Your task to perform on an android device: Clear the cart on costco.com. Add logitech g502 to the cart on costco.com, then select checkout. Image 0: 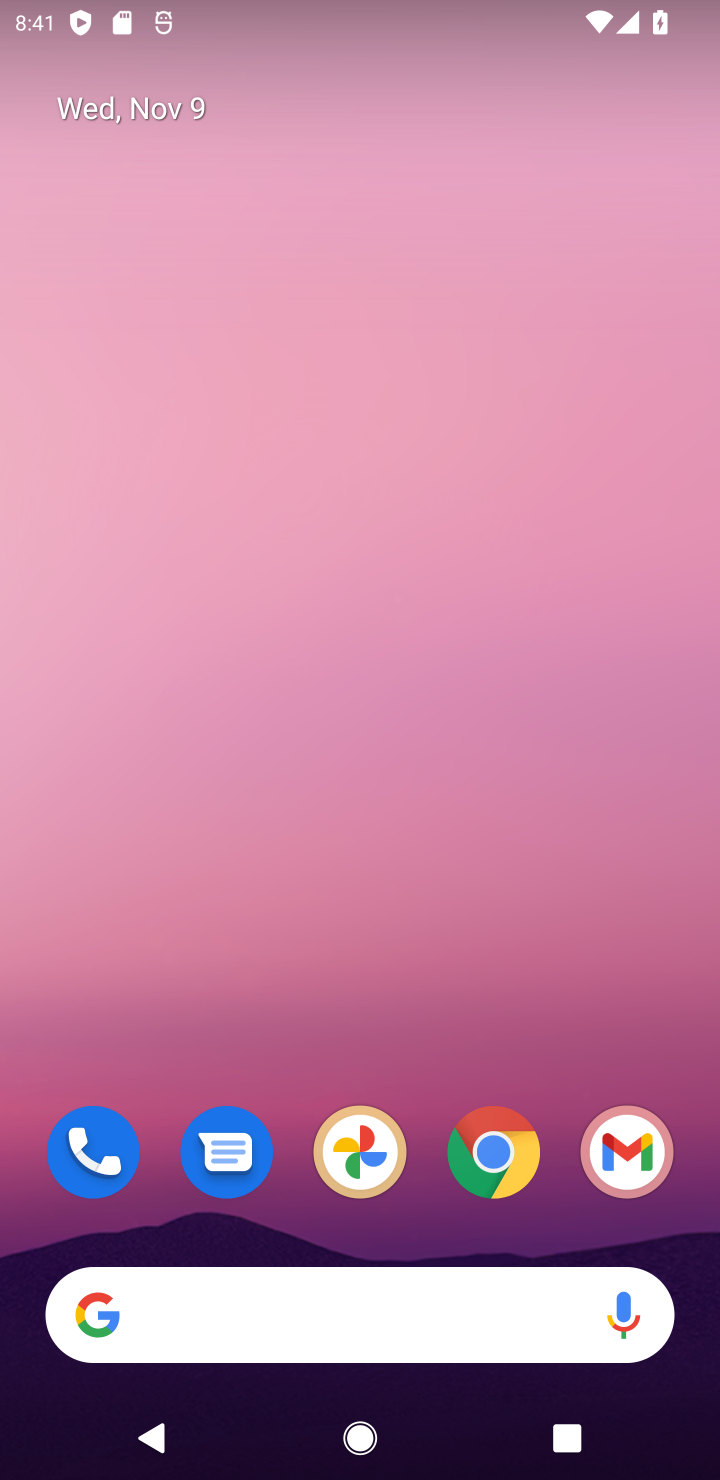
Step 0: click (484, 1148)
Your task to perform on an android device: Clear the cart on costco.com. Add logitech g502 to the cart on costco.com, then select checkout. Image 1: 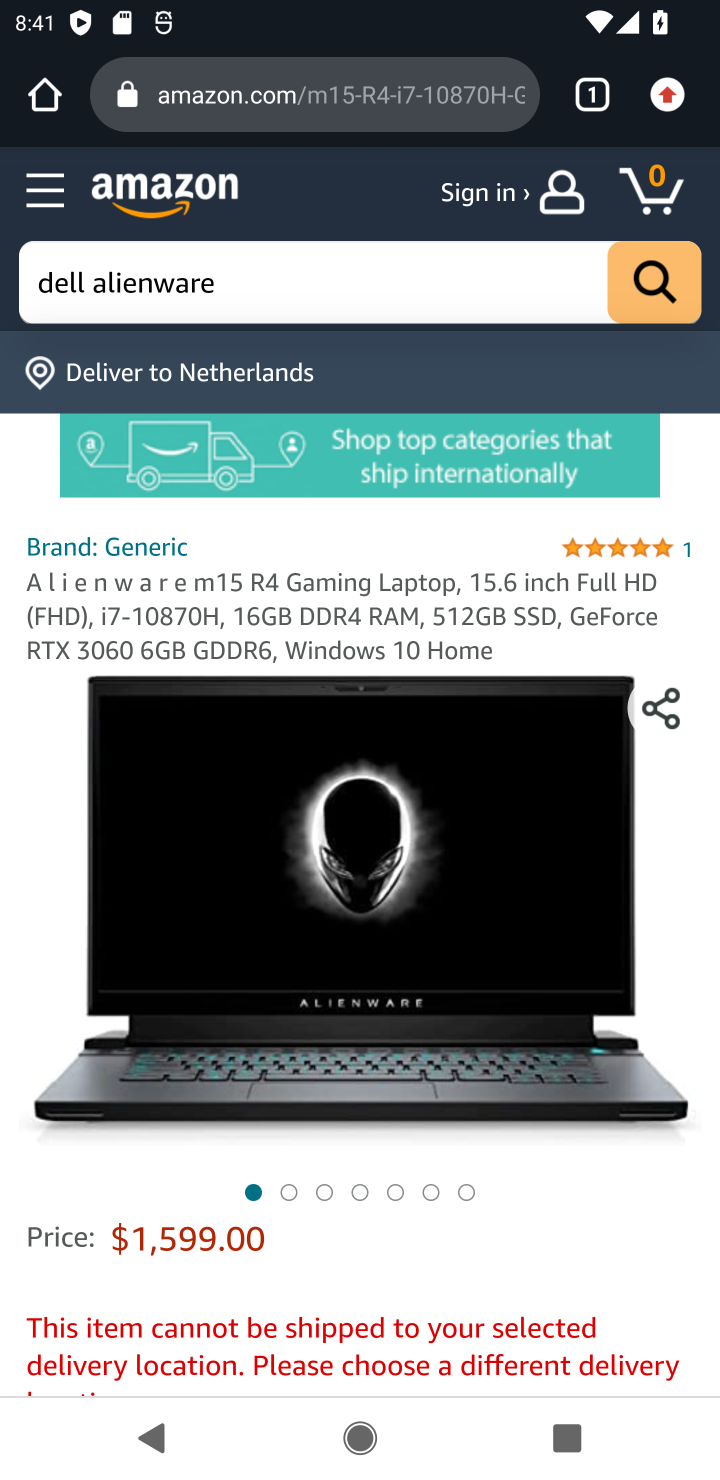
Step 1: click (376, 104)
Your task to perform on an android device: Clear the cart on costco.com. Add logitech g502 to the cart on costco.com, then select checkout. Image 2: 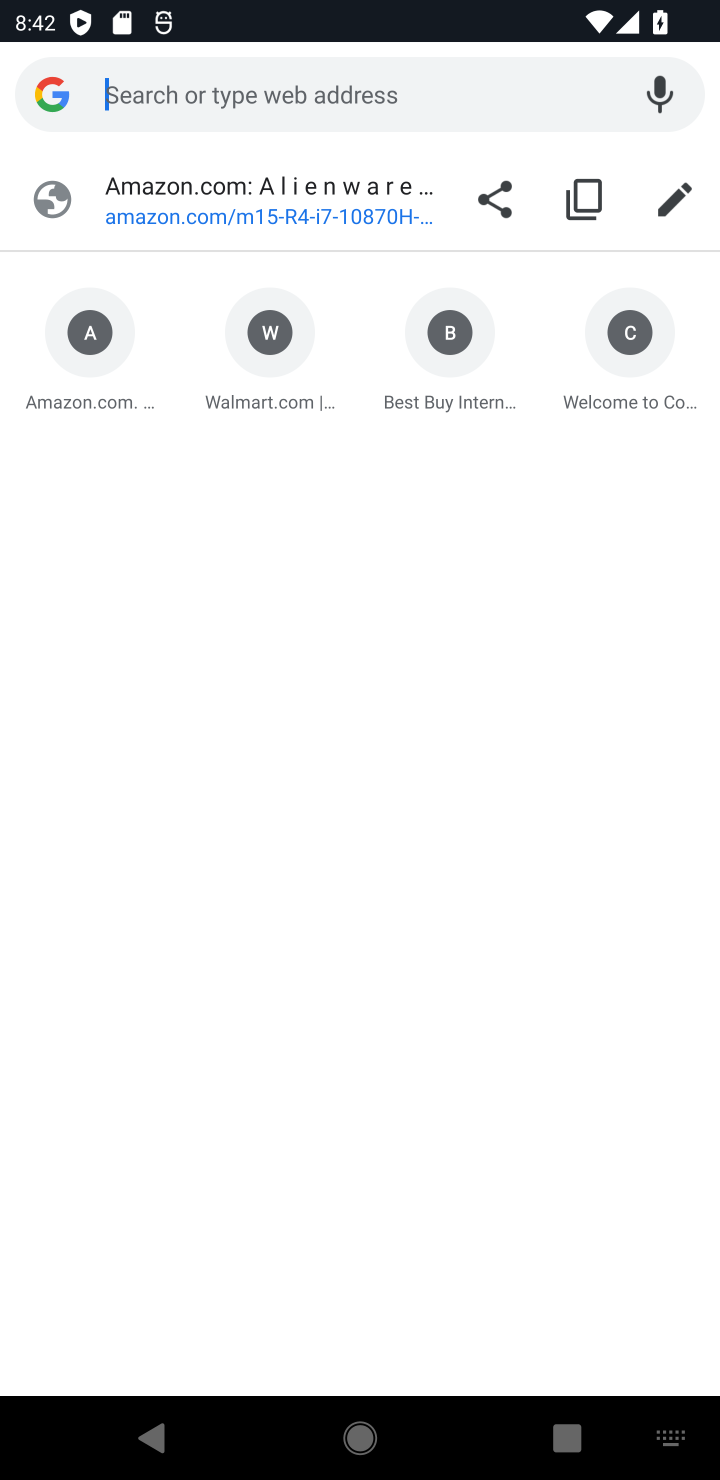
Step 2: type " costco.com"
Your task to perform on an android device: Clear the cart on costco.com. Add logitech g502 to the cart on costco.com, then select checkout. Image 3: 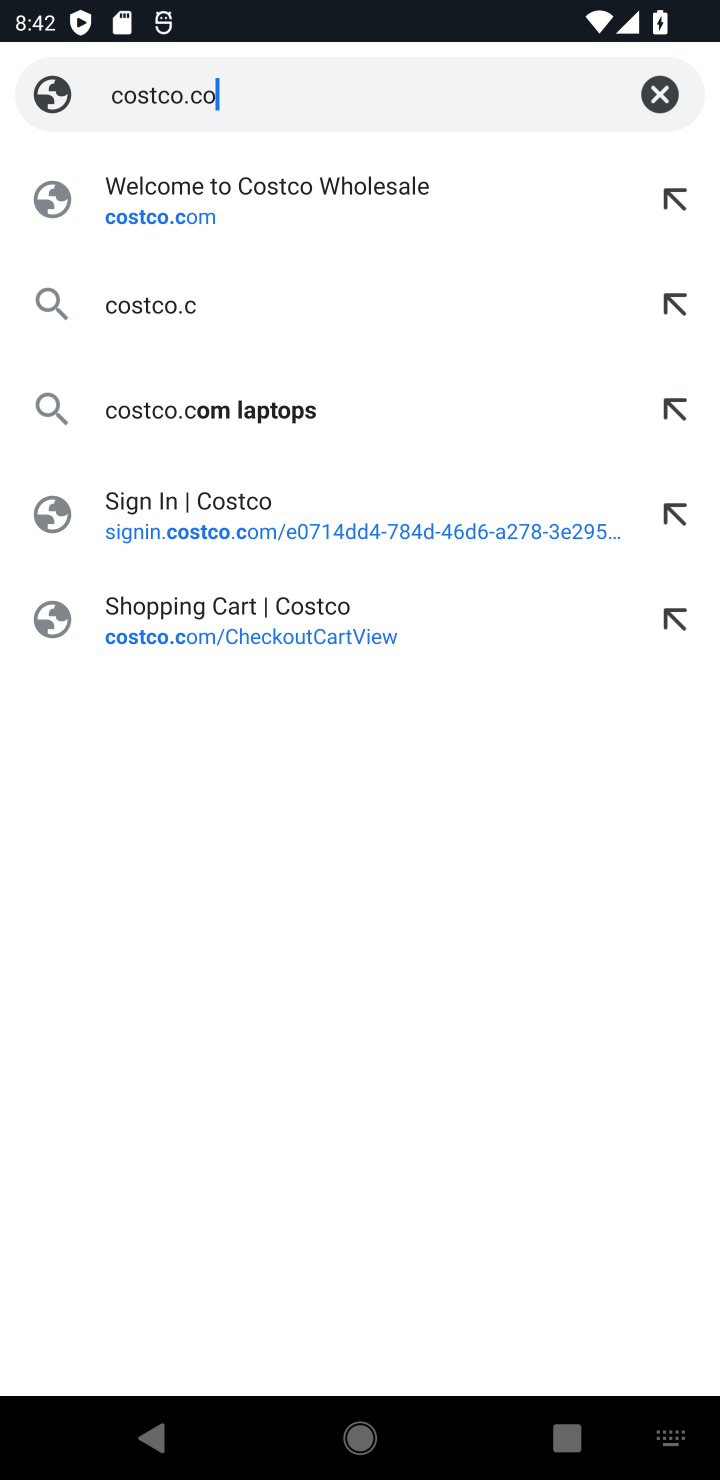
Step 3: press enter
Your task to perform on an android device: Clear the cart on costco.com. Add logitech g502 to the cart on costco.com, then select checkout. Image 4: 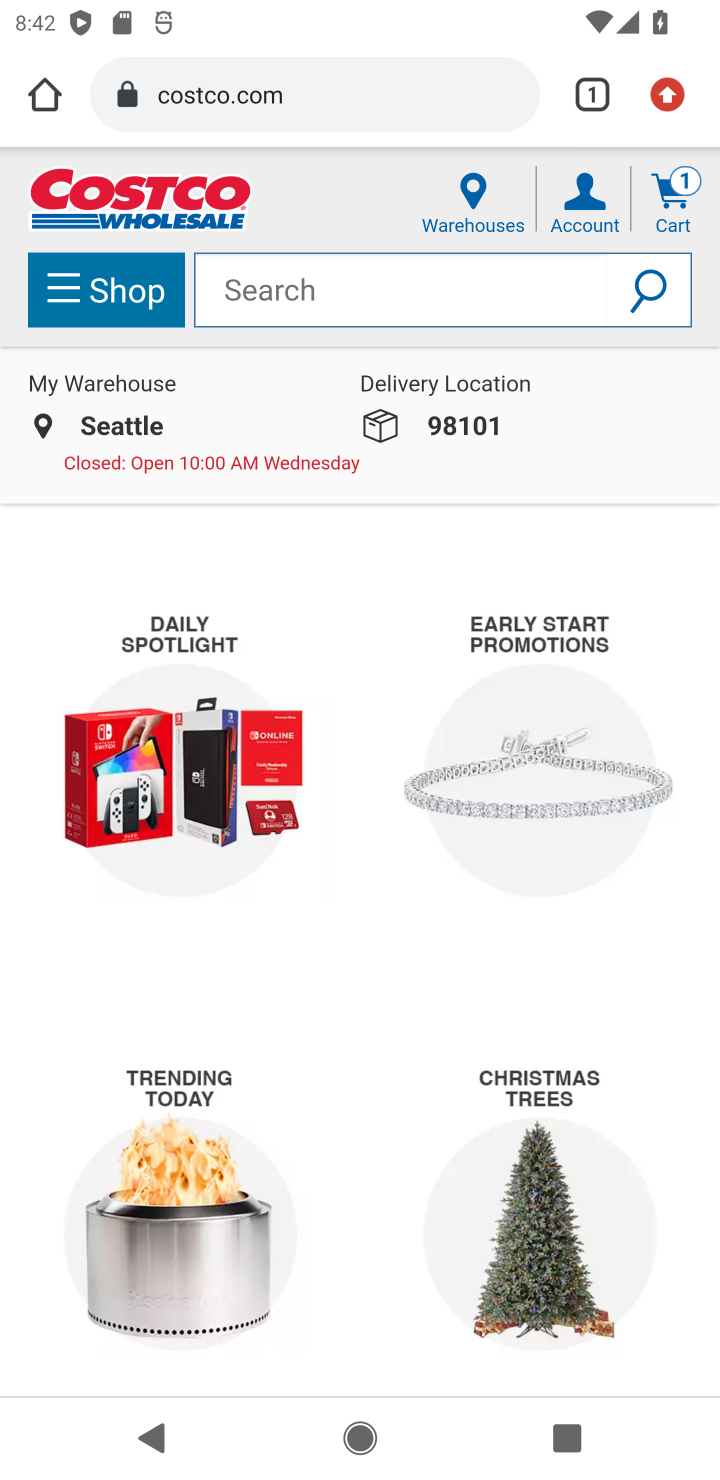
Step 4: click (392, 277)
Your task to perform on an android device: Clear the cart on costco.com. Add logitech g502 to the cart on costco.com, then select checkout. Image 5: 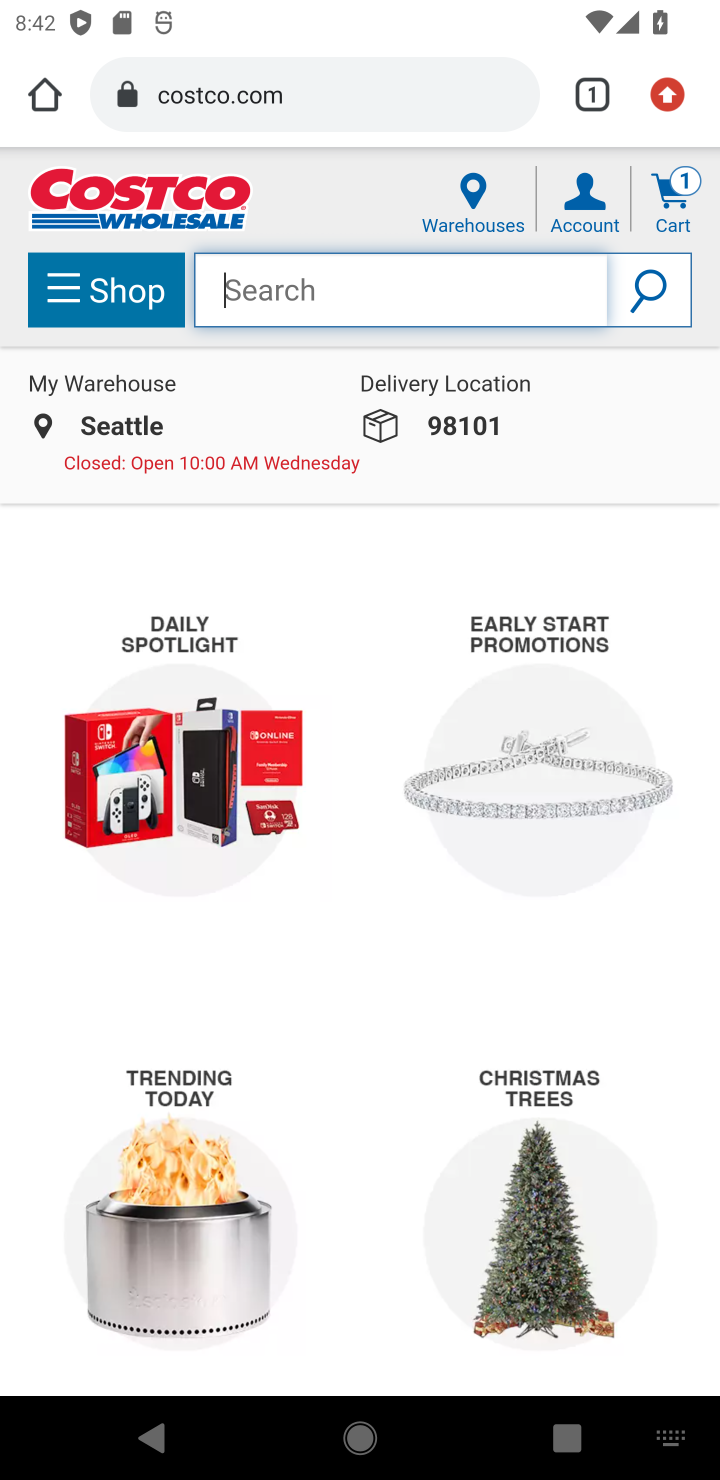
Step 5: type "logitech g502"
Your task to perform on an android device: Clear the cart on costco.com. Add logitech g502 to the cart on costco.com, then select checkout. Image 6: 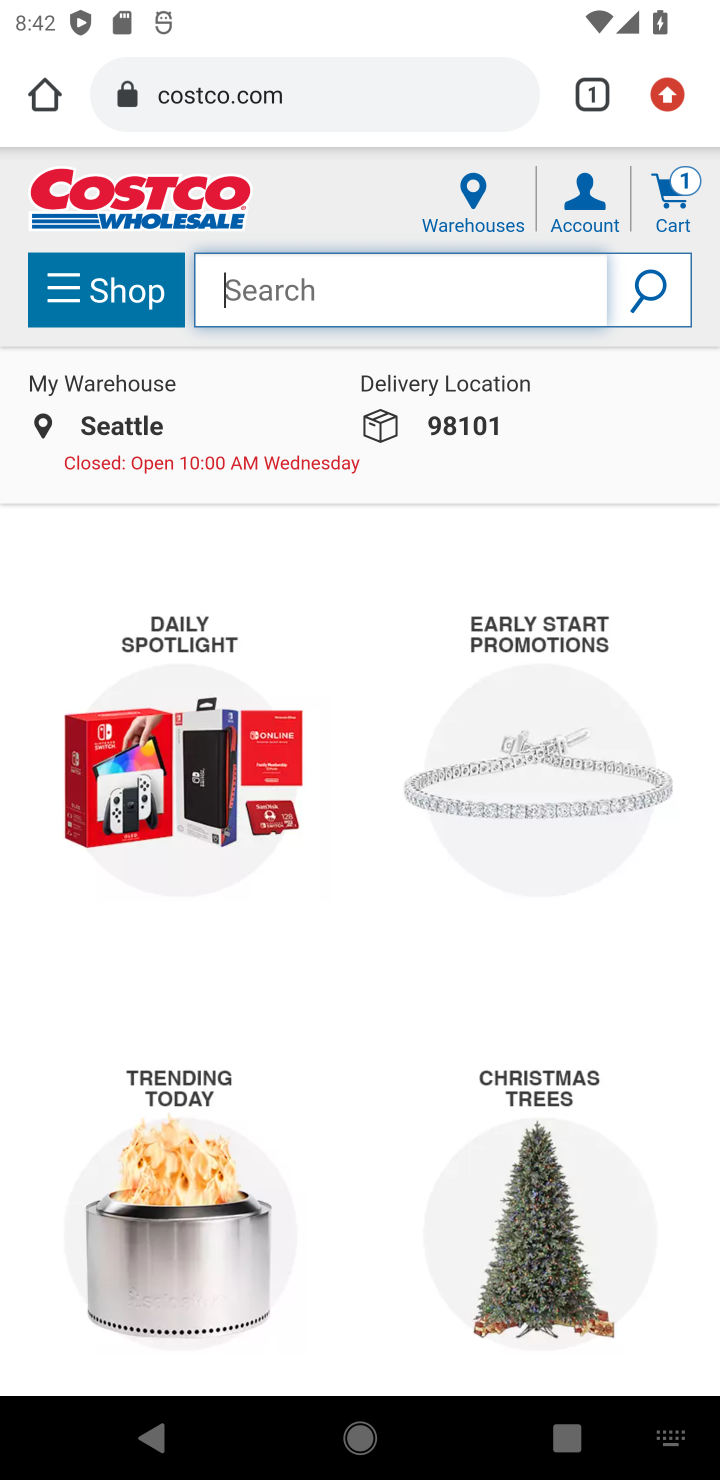
Step 6: press enter
Your task to perform on an android device: Clear the cart on costco.com. Add logitech g502 to the cart on costco.com, then select checkout. Image 7: 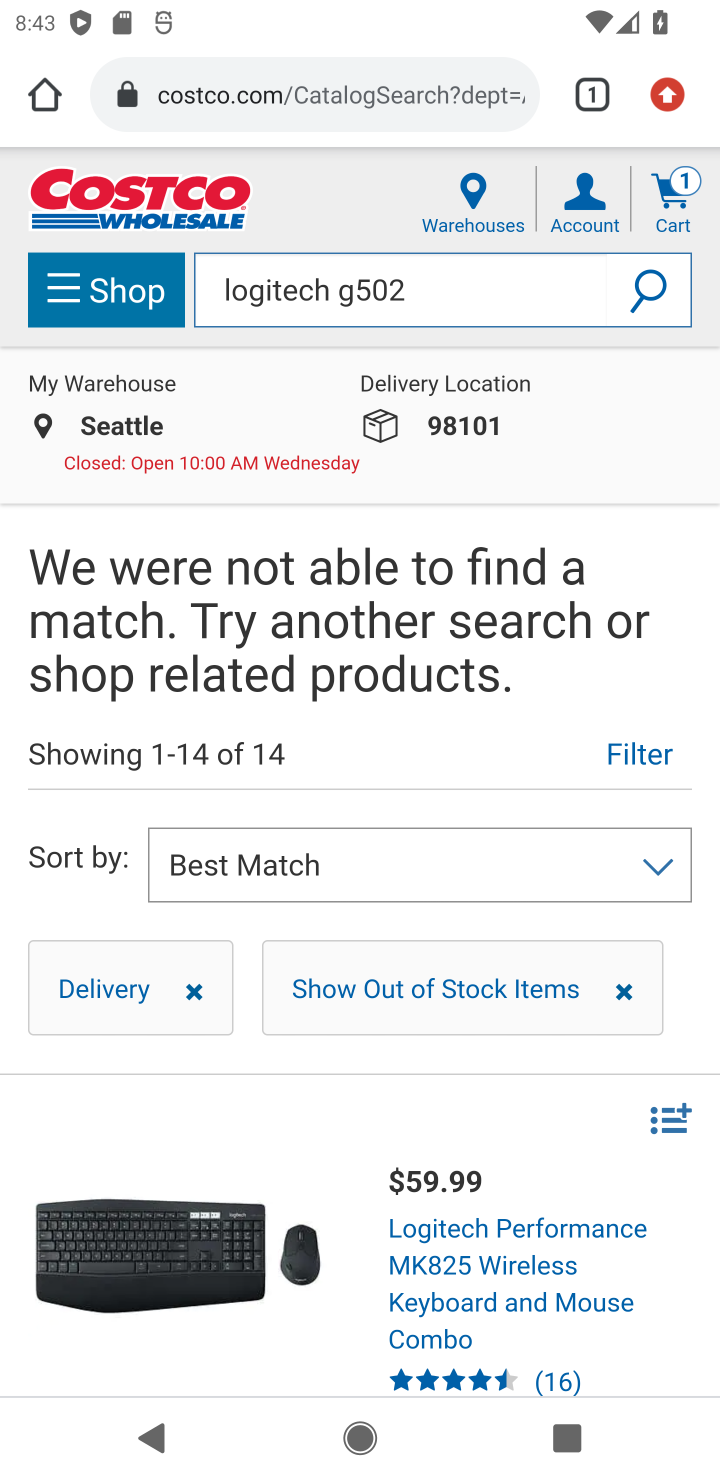
Step 7: task complete